Your task to perform on an android device: change the clock display to show seconds Image 0: 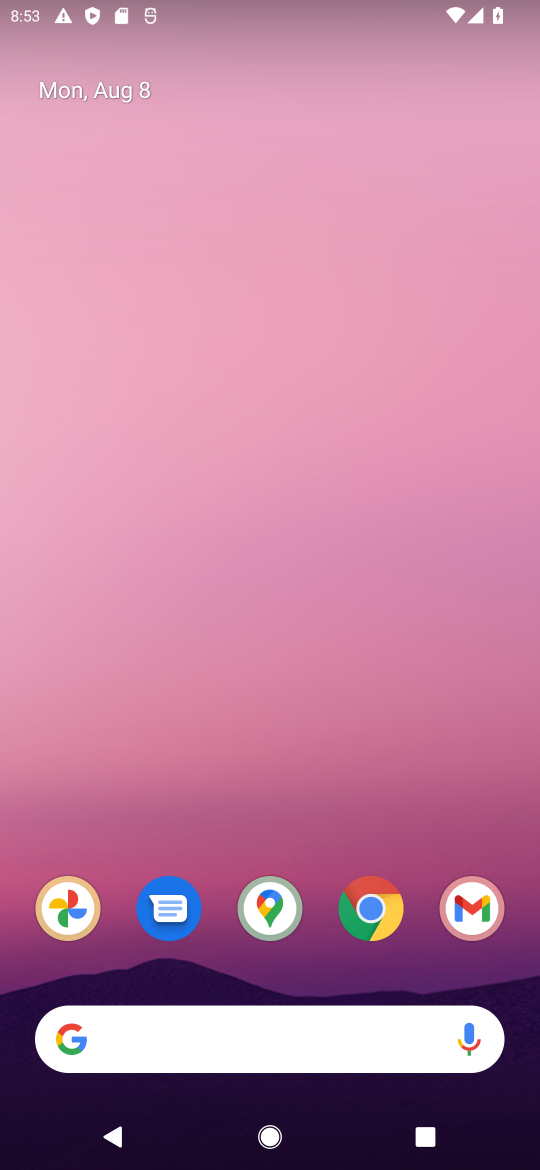
Step 0: drag from (222, 964) to (370, 212)
Your task to perform on an android device: change the clock display to show seconds Image 1: 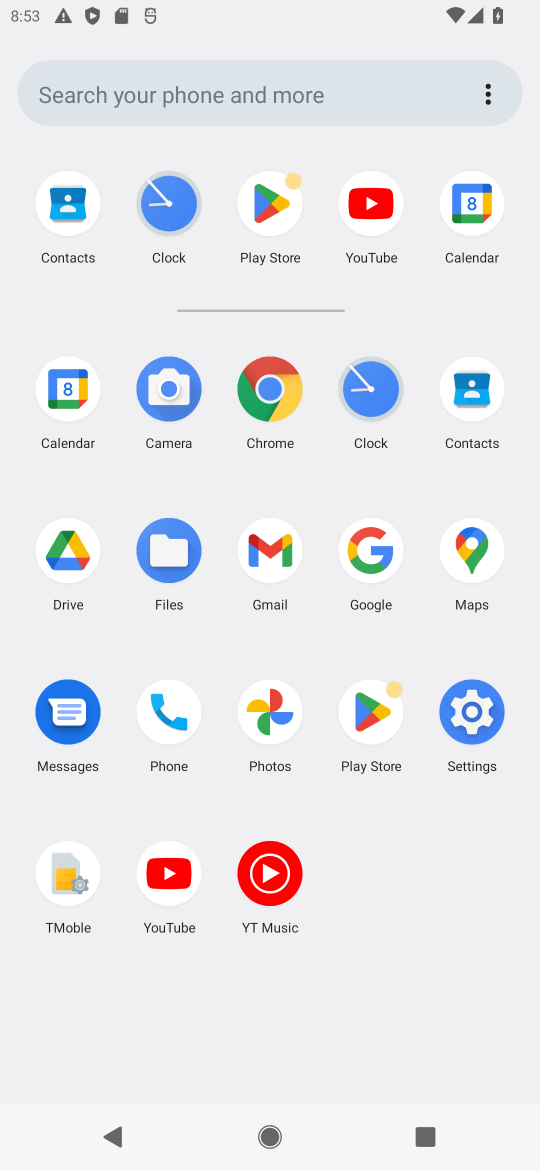
Step 1: click (359, 423)
Your task to perform on an android device: change the clock display to show seconds Image 2: 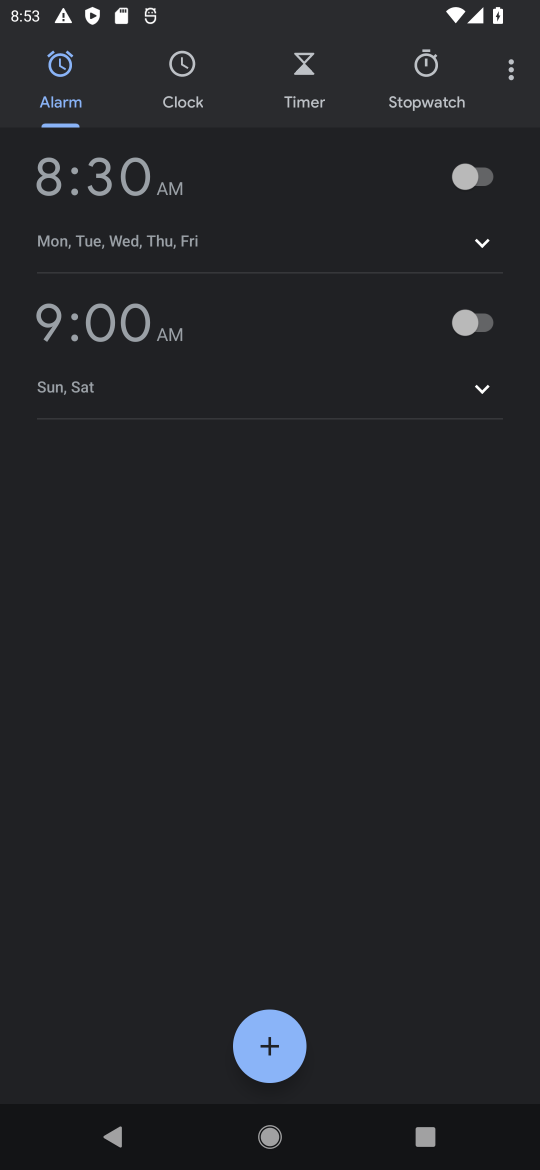
Step 2: click (518, 78)
Your task to perform on an android device: change the clock display to show seconds Image 3: 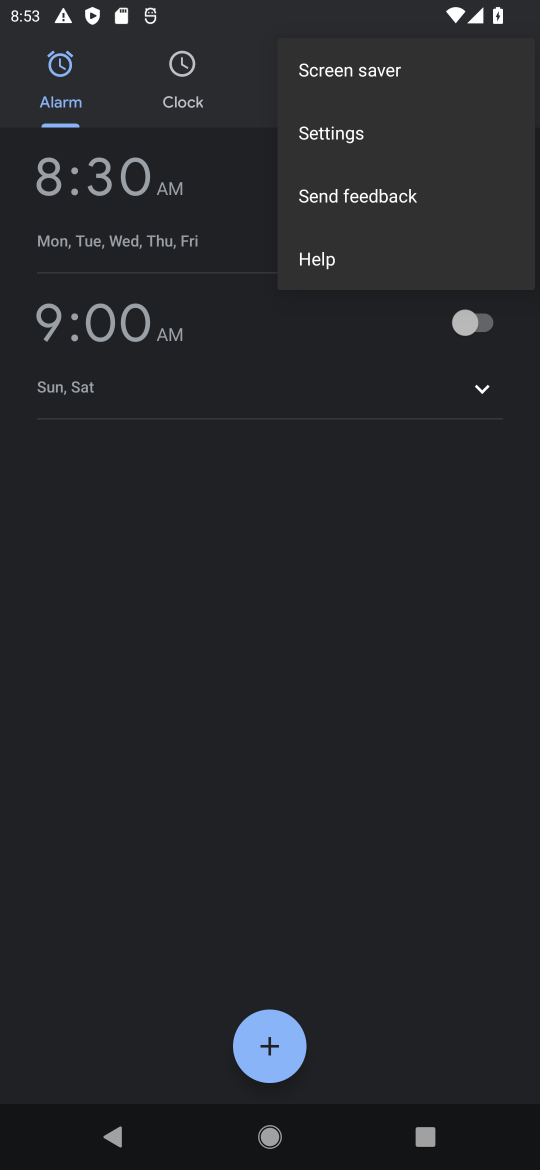
Step 3: click (330, 135)
Your task to perform on an android device: change the clock display to show seconds Image 4: 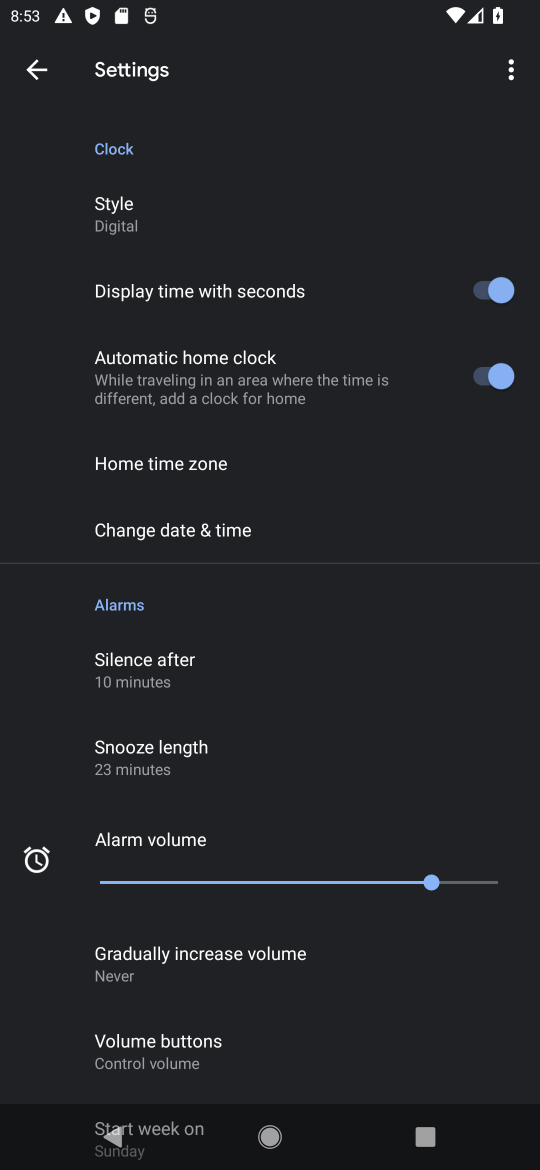
Step 4: task complete